Your task to perform on an android device: Clear all items from cart on target. Search for corsair k70 on target, select the first entry, and add it to the cart. Image 0: 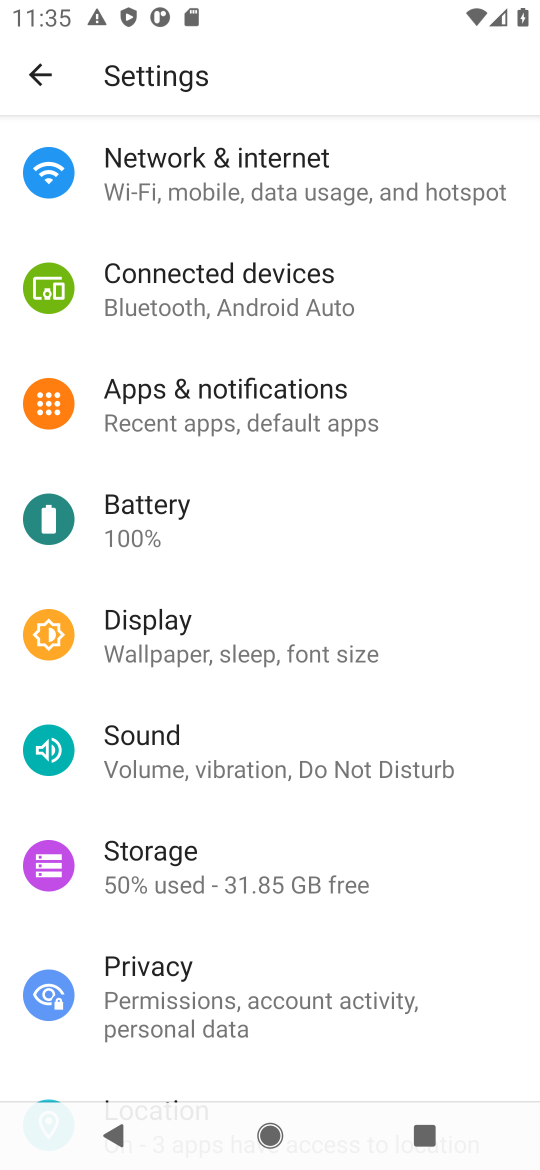
Step 0: press home button
Your task to perform on an android device: Clear all items from cart on target. Search for corsair k70 on target, select the first entry, and add it to the cart. Image 1: 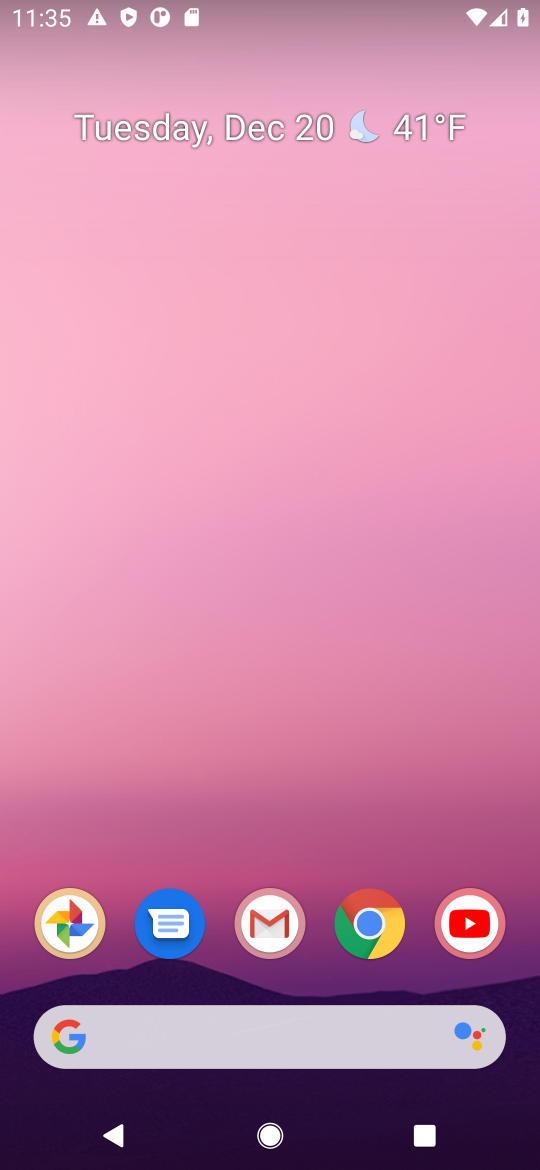
Step 1: click (355, 934)
Your task to perform on an android device: Clear all items from cart on target. Search for corsair k70 on target, select the first entry, and add it to the cart. Image 2: 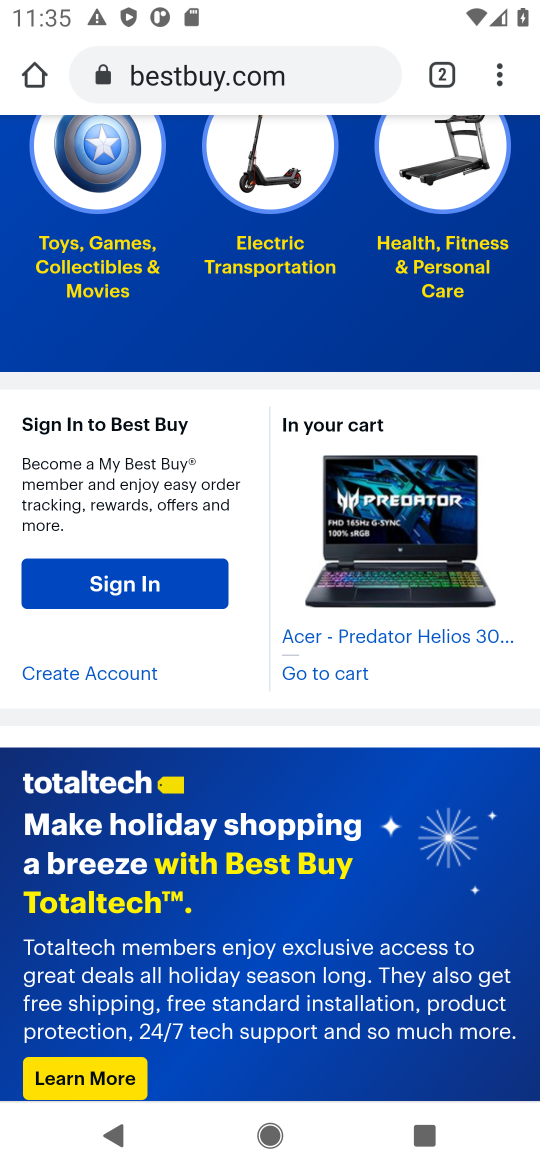
Step 2: type "target"
Your task to perform on an android device: Clear all items from cart on target. Search for corsair k70 on target, select the first entry, and add it to the cart. Image 3: 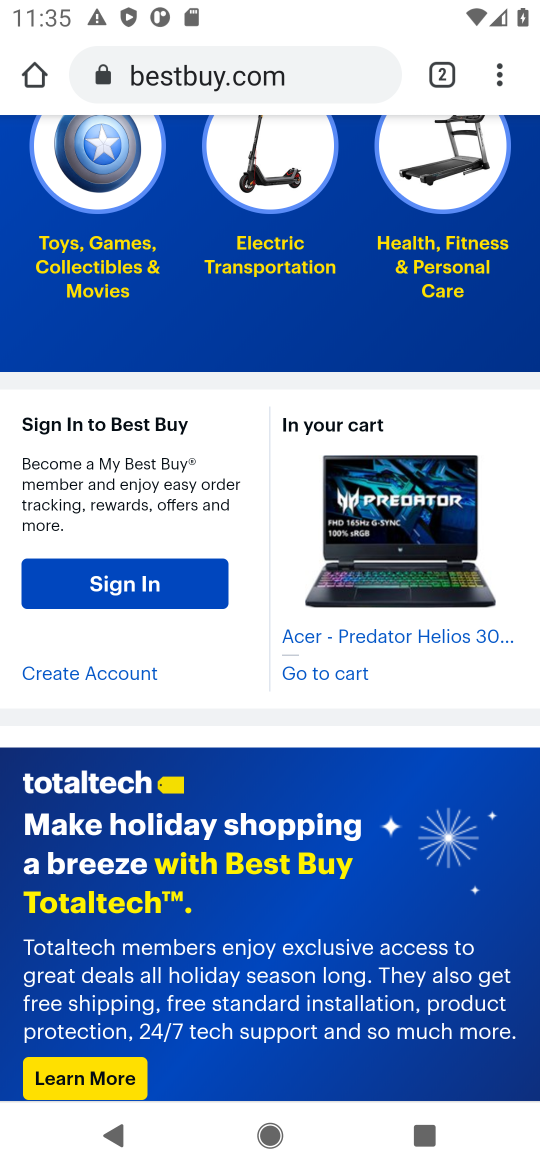
Step 3: click (297, 86)
Your task to perform on an android device: Clear all items from cart on target. Search for corsair k70 on target, select the first entry, and add it to the cart. Image 4: 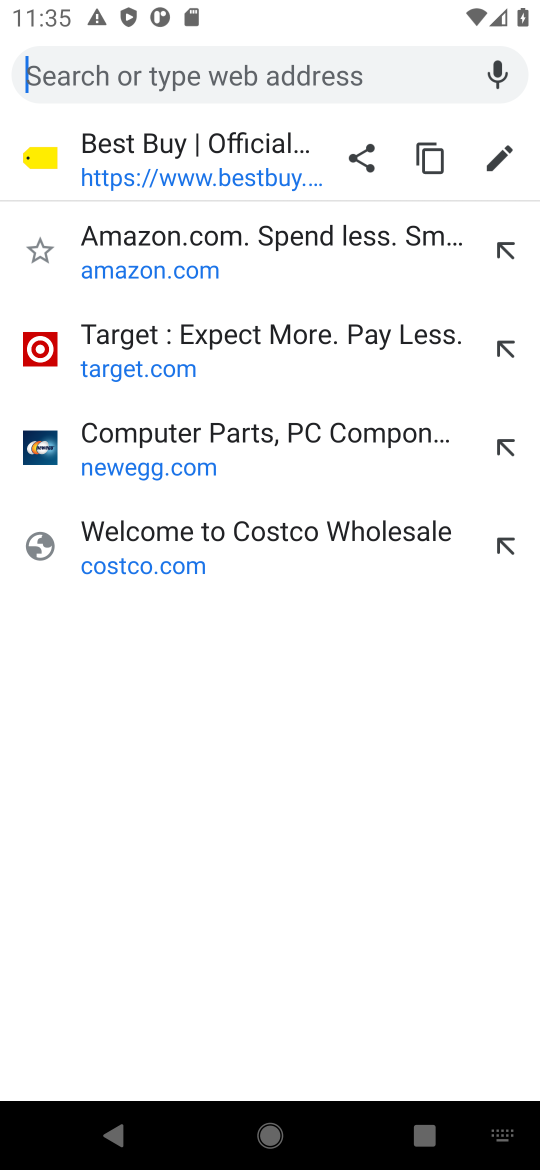
Step 4: click (291, 363)
Your task to perform on an android device: Clear all items from cart on target. Search for corsair k70 on target, select the first entry, and add it to the cart. Image 5: 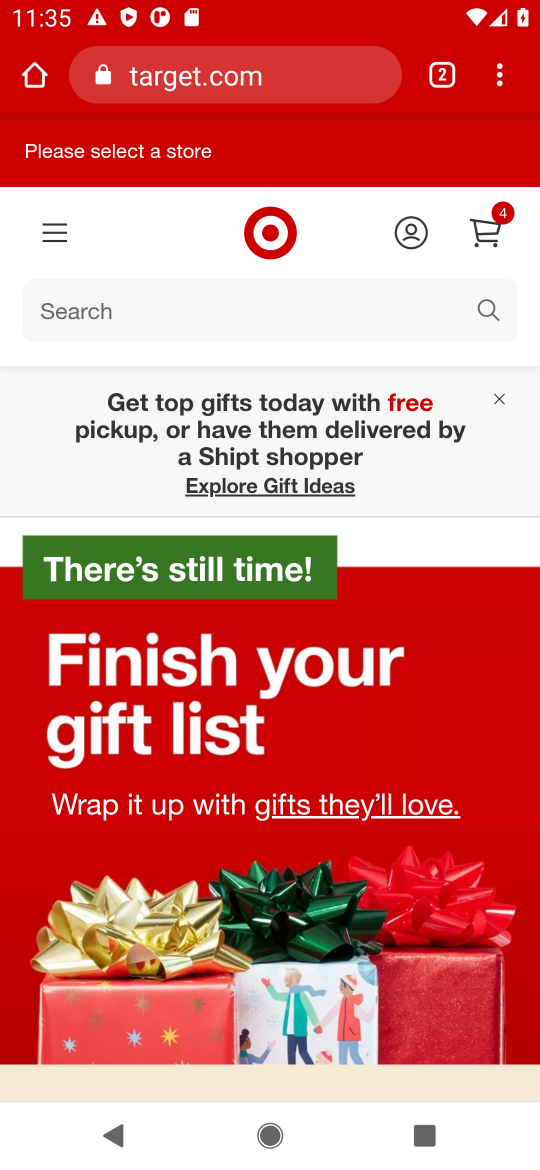
Step 5: click (201, 312)
Your task to perform on an android device: Clear all items from cart on target. Search for corsair k70 on target, select the first entry, and add it to the cart. Image 6: 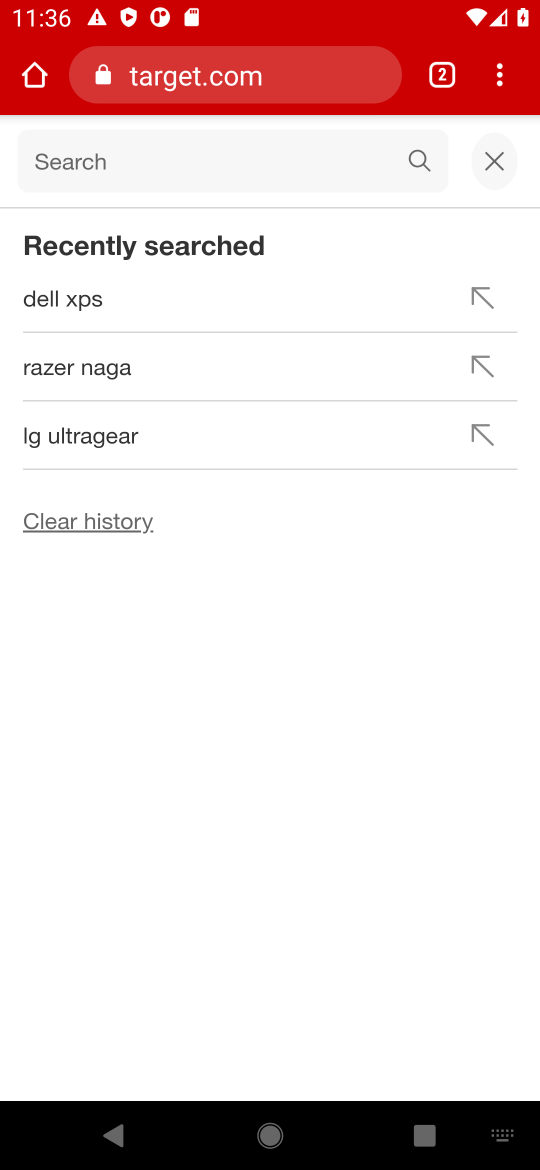
Step 6: type "crsair k70"
Your task to perform on an android device: Clear all items from cart on target. Search for corsair k70 on target, select the first entry, and add it to the cart. Image 7: 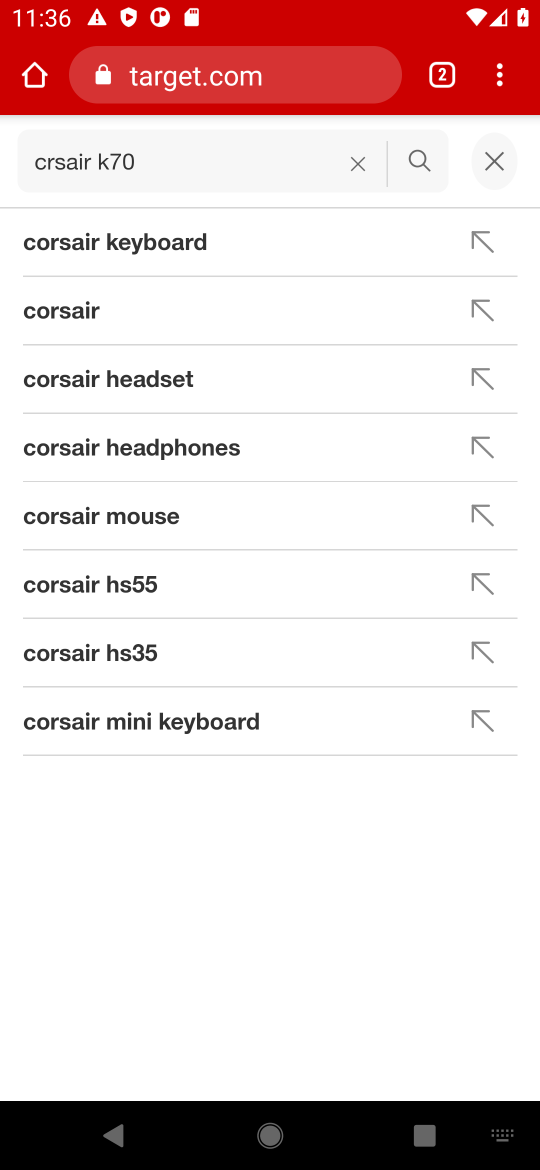
Step 7: click (107, 300)
Your task to perform on an android device: Clear all items from cart on target. Search for corsair k70 on target, select the first entry, and add it to the cart. Image 8: 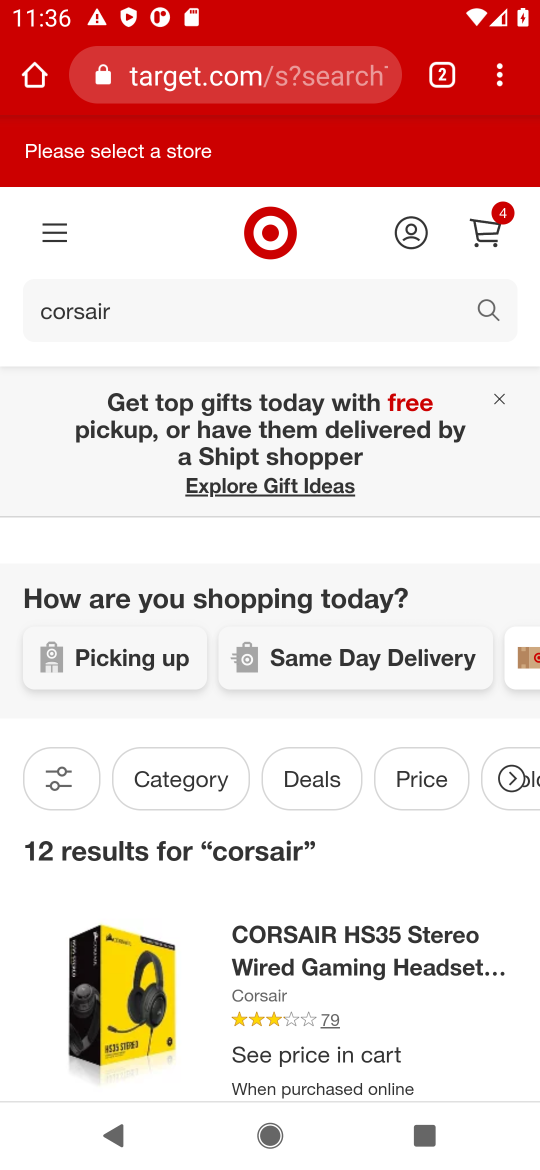
Step 8: click (297, 936)
Your task to perform on an android device: Clear all items from cart on target. Search for corsair k70 on target, select the first entry, and add it to the cart. Image 9: 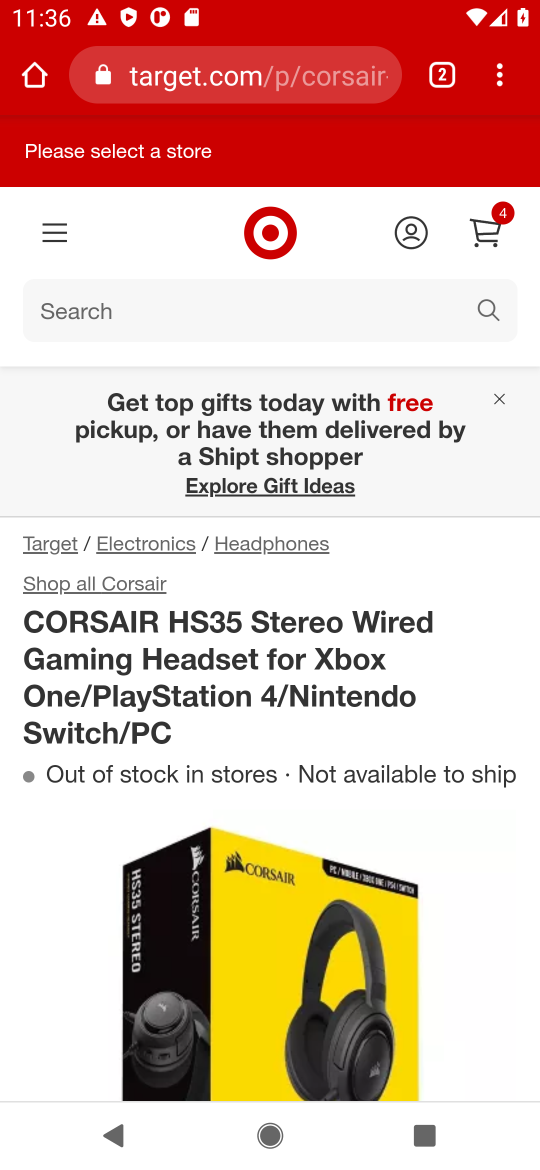
Step 9: drag from (297, 936) to (287, 58)
Your task to perform on an android device: Clear all items from cart on target. Search for corsair k70 on target, select the first entry, and add it to the cart. Image 10: 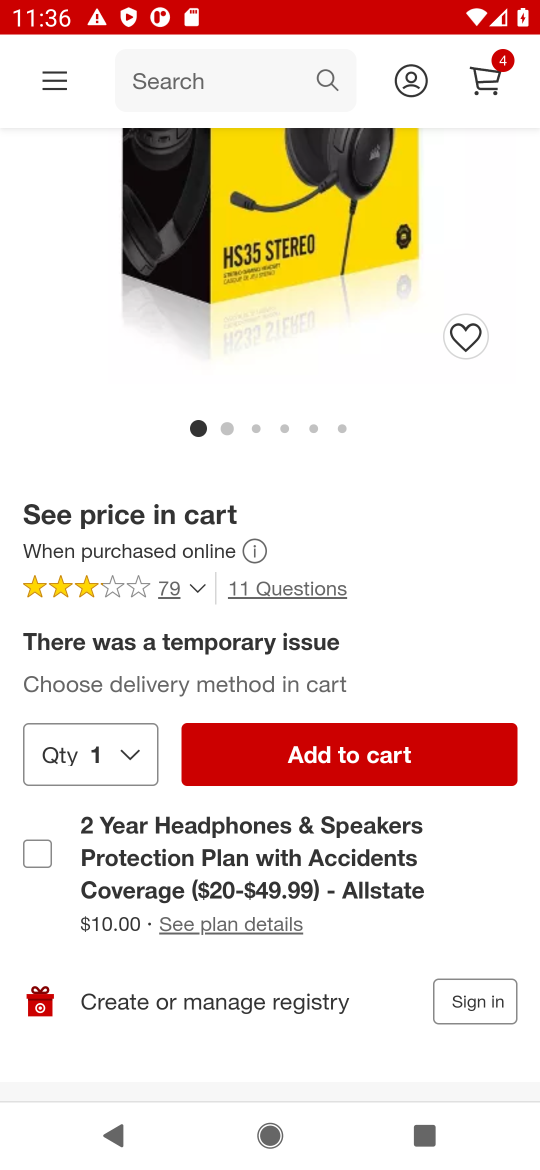
Step 10: click (384, 725)
Your task to perform on an android device: Clear all items from cart on target. Search for corsair k70 on target, select the first entry, and add it to the cart. Image 11: 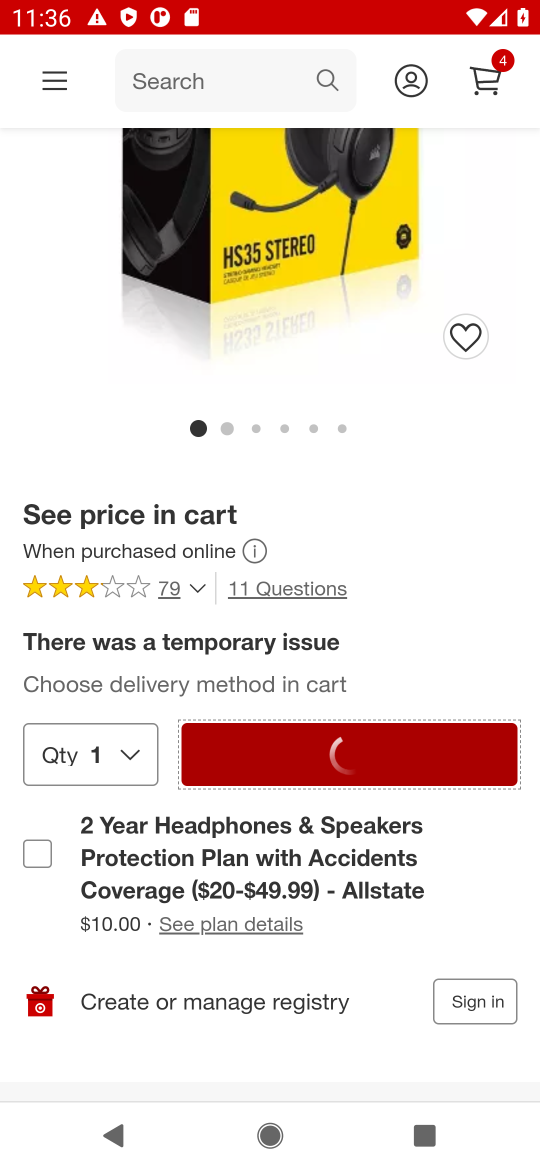
Step 11: task complete